Your task to perform on an android device: add a label to a message in the gmail app Image 0: 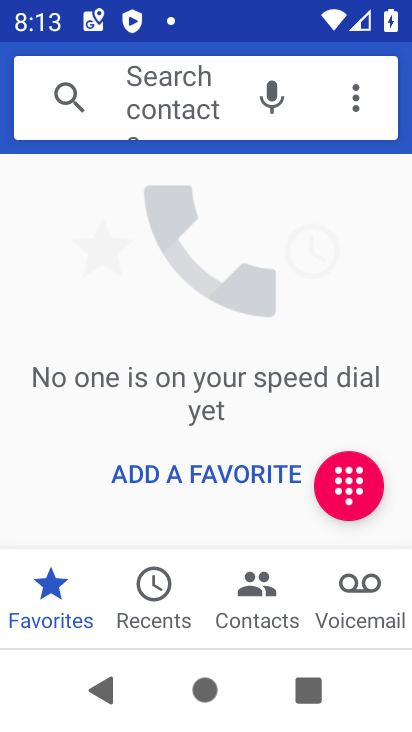
Step 0: press home button
Your task to perform on an android device: add a label to a message in the gmail app Image 1: 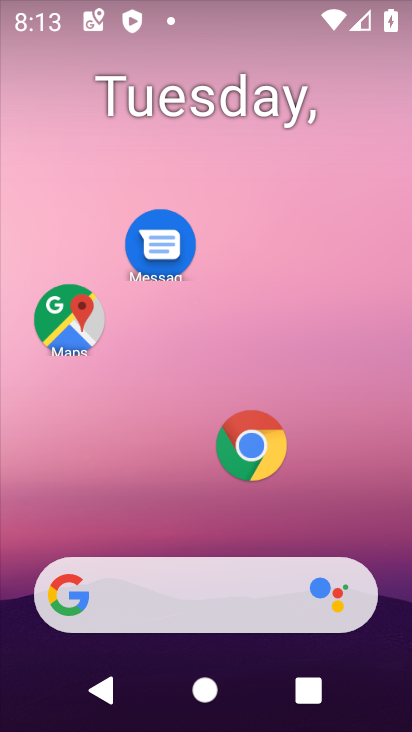
Step 1: drag from (155, 540) to (144, 170)
Your task to perform on an android device: add a label to a message in the gmail app Image 2: 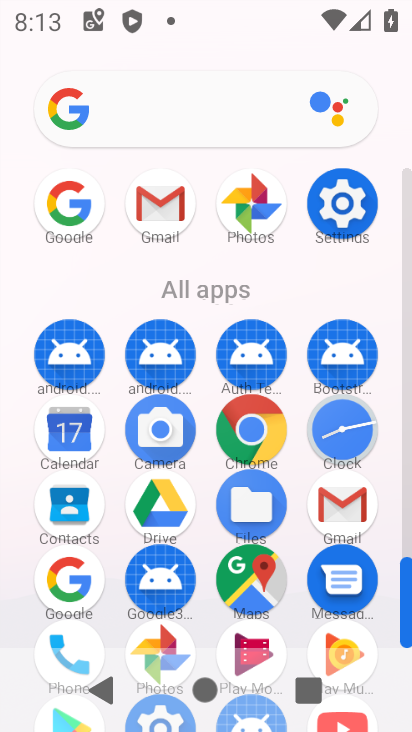
Step 2: click (166, 218)
Your task to perform on an android device: add a label to a message in the gmail app Image 3: 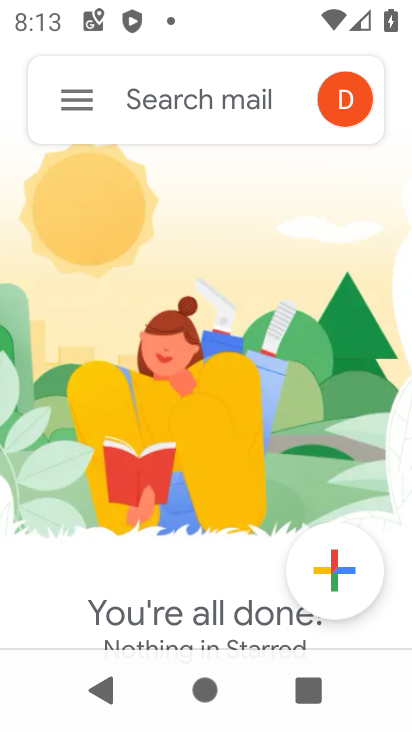
Step 3: drag from (149, 637) to (169, 255)
Your task to perform on an android device: add a label to a message in the gmail app Image 4: 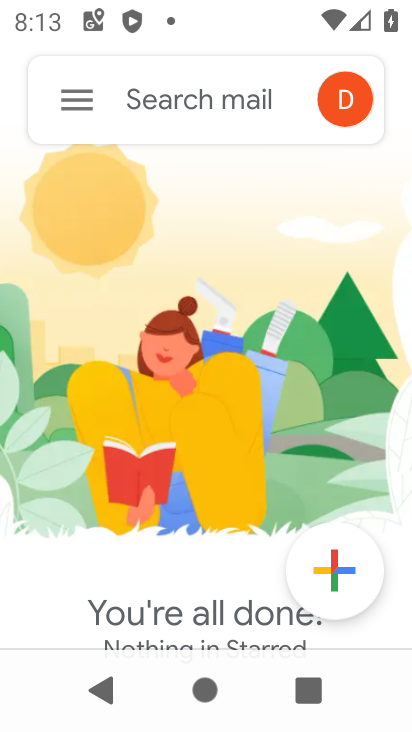
Step 4: click (80, 99)
Your task to perform on an android device: add a label to a message in the gmail app Image 5: 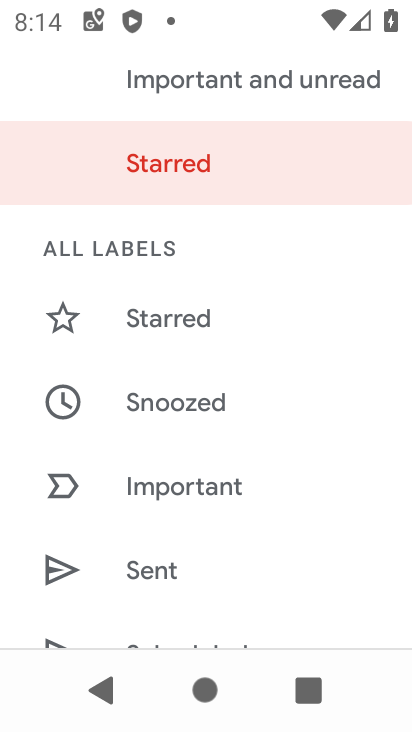
Step 5: drag from (165, 191) to (204, 586)
Your task to perform on an android device: add a label to a message in the gmail app Image 6: 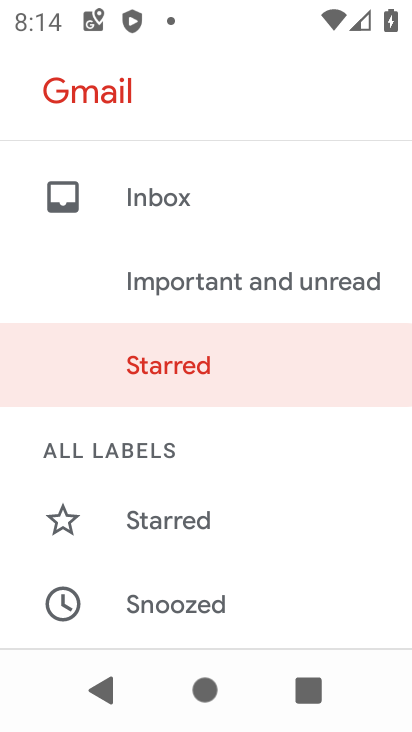
Step 6: click (120, 189)
Your task to perform on an android device: add a label to a message in the gmail app Image 7: 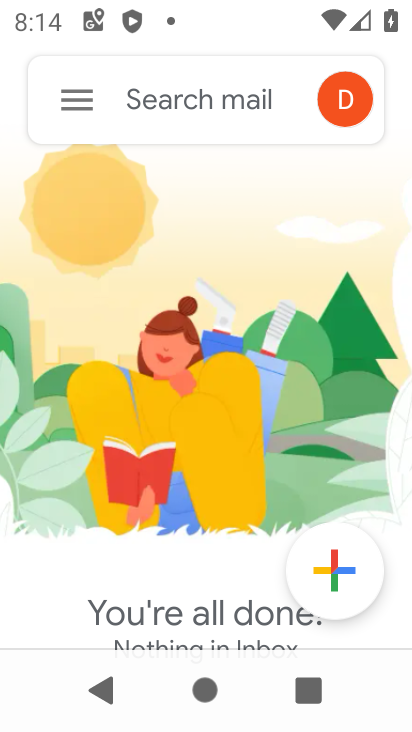
Step 7: task complete